Your task to perform on an android device: Go to CNN.com Image 0: 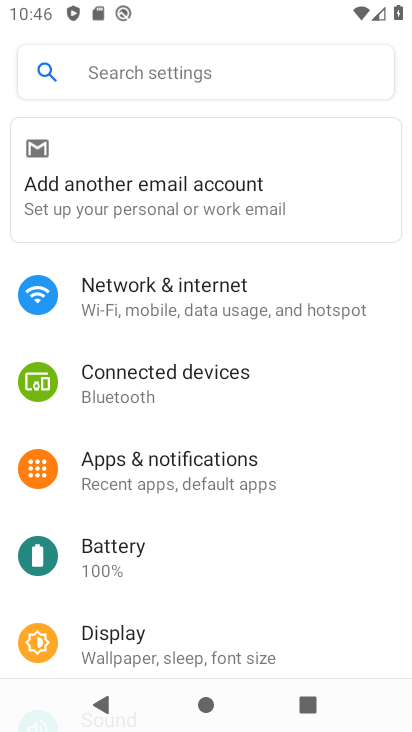
Step 0: press home button
Your task to perform on an android device: Go to CNN.com Image 1: 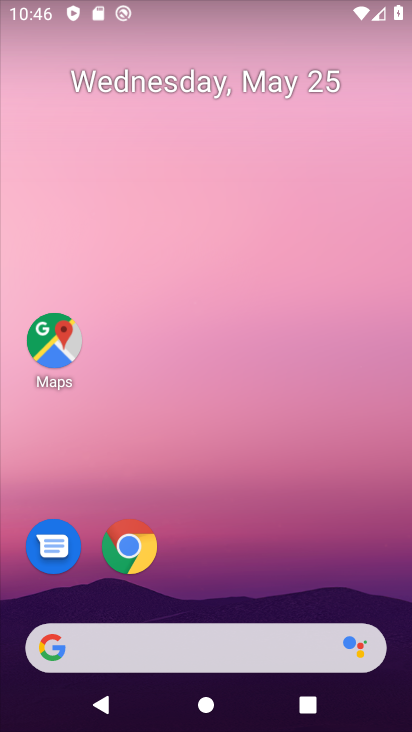
Step 1: drag from (346, 575) to (285, 158)
Your task to perform on an android device: Go to CNN.com Image 2: 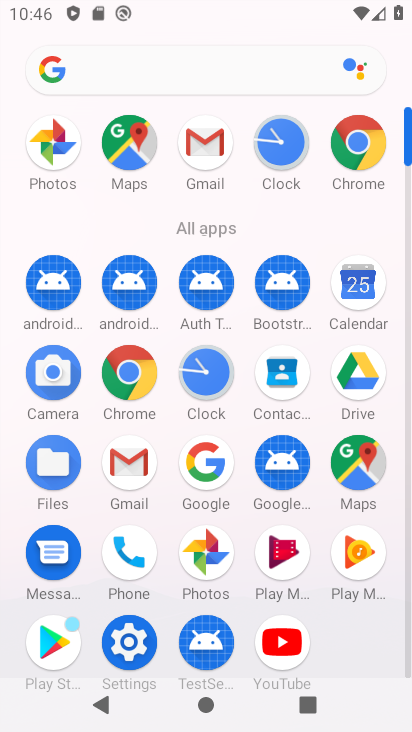
Step 2: click (137, 386)
Your task to perform on an android device: Go to CNN.com Image 3: 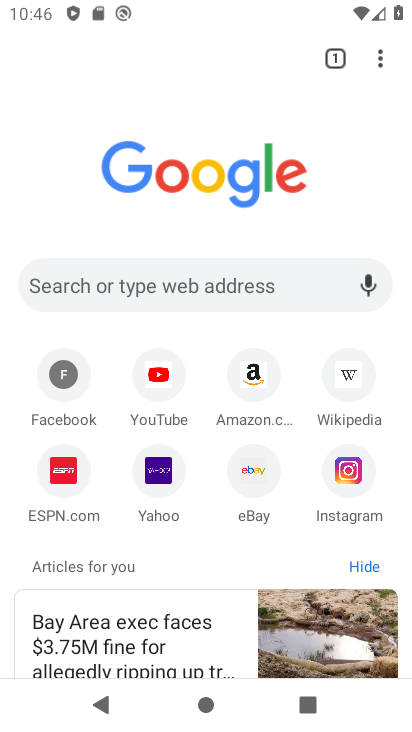
Step 3: click (146, 277)
Your task to perform on an android device: Go to CNN.com Image 4: 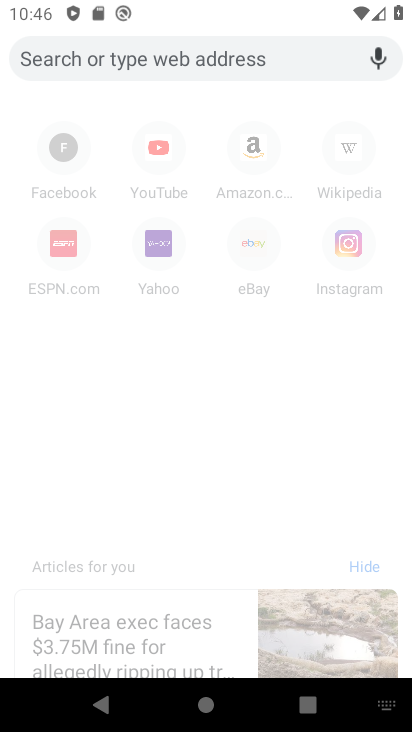
Step 4: type "cnn.com"
Your task to perform on an android device: Go to CNN.com Image 5: 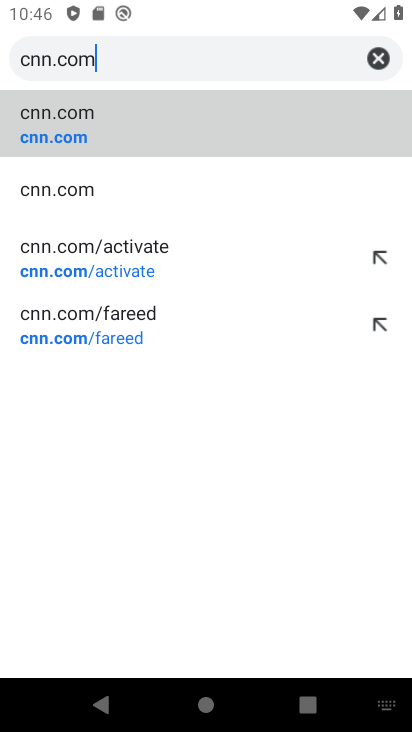
Step 5: click (95, 141)
Your task to perform on an android device: Go to CNN.com Image 6: 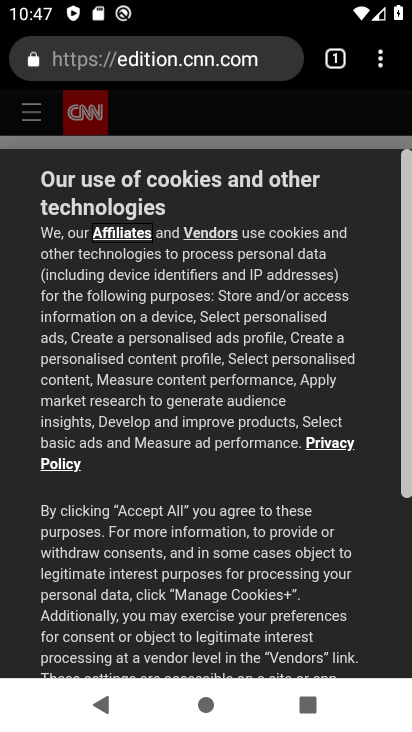
Step 6: task complete